Your task to perform on an android device: add a contact in the contacts app Image 0: 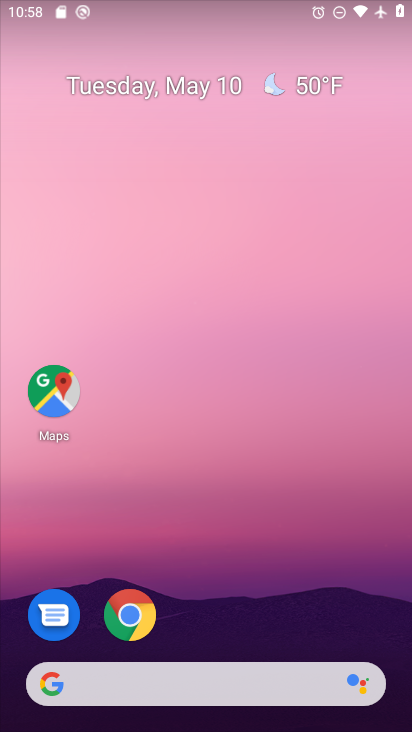
Step 0: drag from (362, 622) to (212, 38)
Your task to perform on an android device: add a contact in the contacts app Image 1: 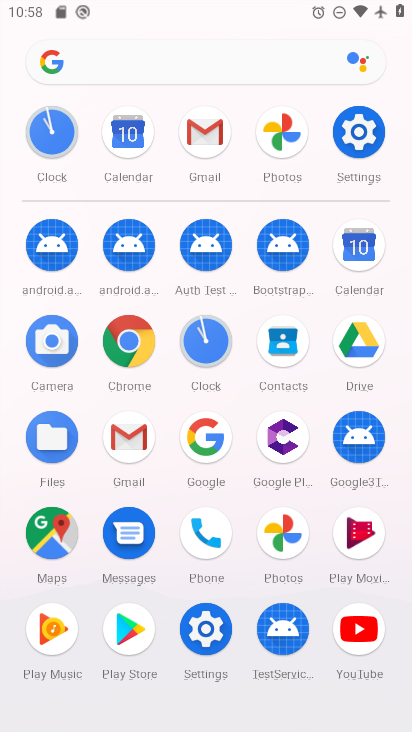
Step 1: click (279, 344)
Your task to perform on an android device: add a contact in the contacts app Image 2: 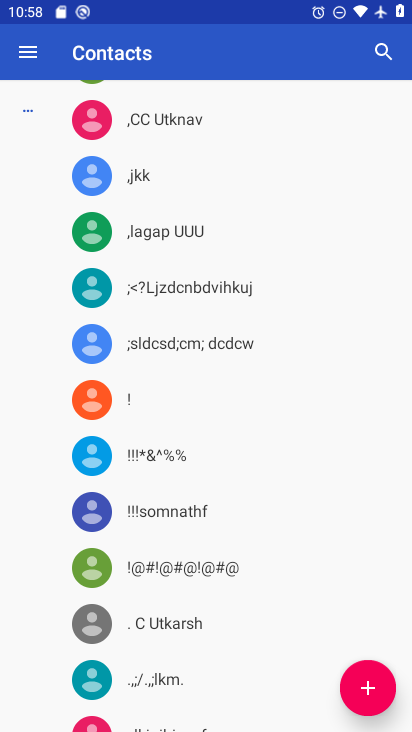
Step 2: click (364, 685)
Your task to perform on an android device: add a contact in the contacts app Image 3: 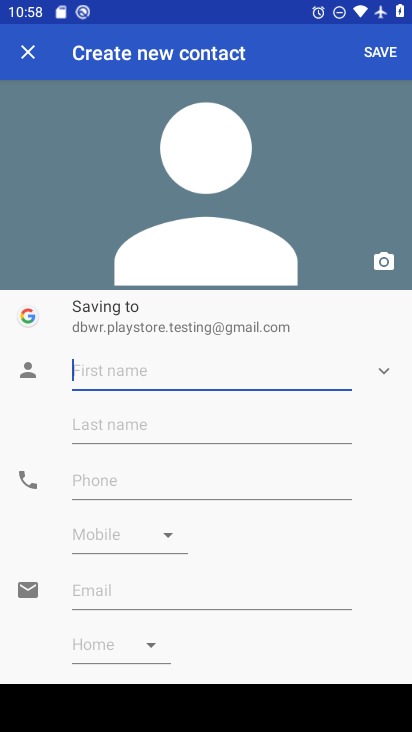
Step 3: type "jghnhnf"
Your task to perform on an android device: add a contact in the contacts app Image 4: 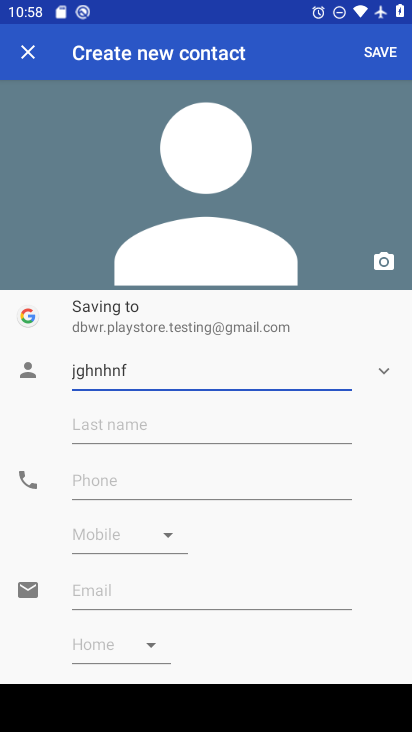
Step 4: click (177, 480)
Your task to perform on an android device: add a contact in the contacts app Image 5: 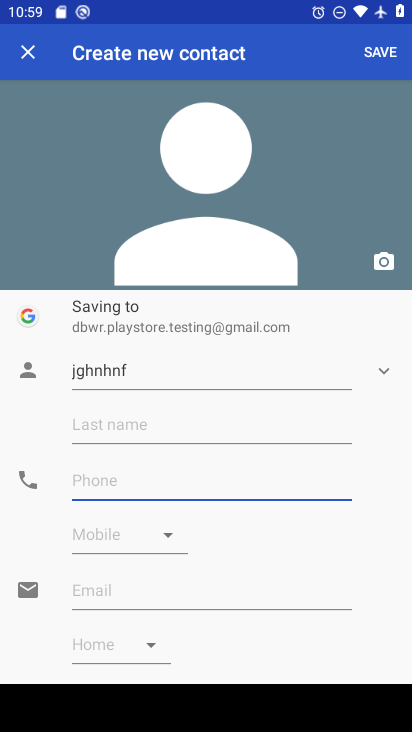
Step 5: type "9656455"
Your task to perform on an android device: add a contact in the contacts app Image 6: 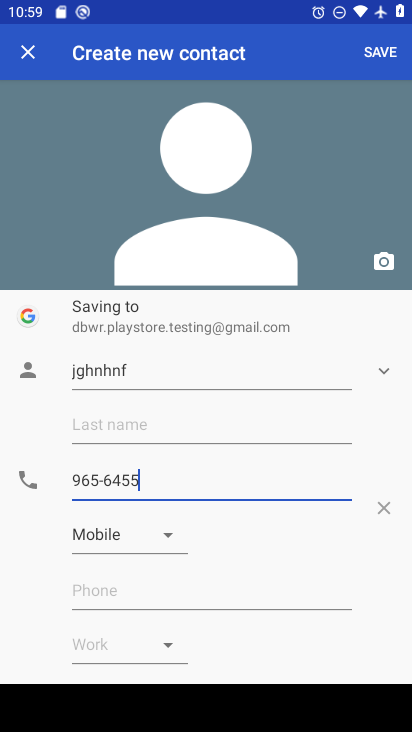
Step 6: click (374, 49)
Your task to perform on an android device: add a contact in the contacts app Image 7: 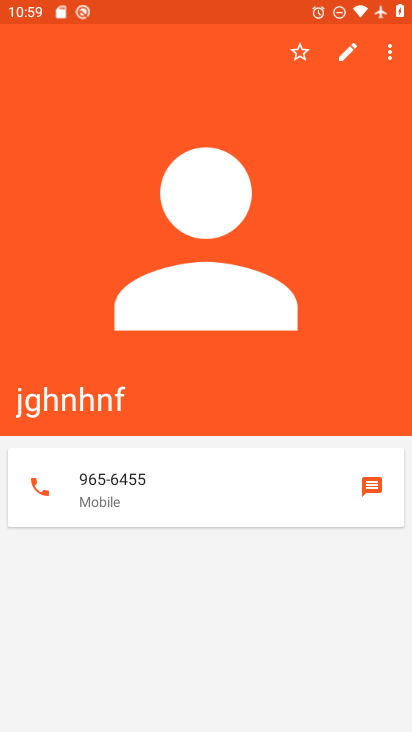
Step 7: task complete